Your task to perform on an android device: toggle wifi Image 0: 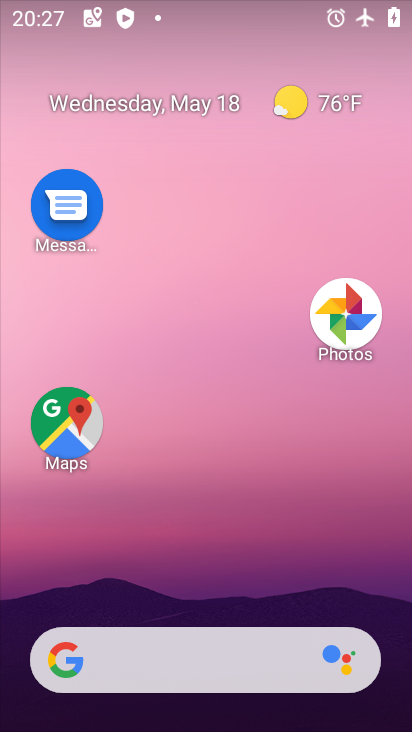
Step 0: drag from (226, 630) to (187, 89)
Your task to perform on an android device: toggle wifi Image 1: 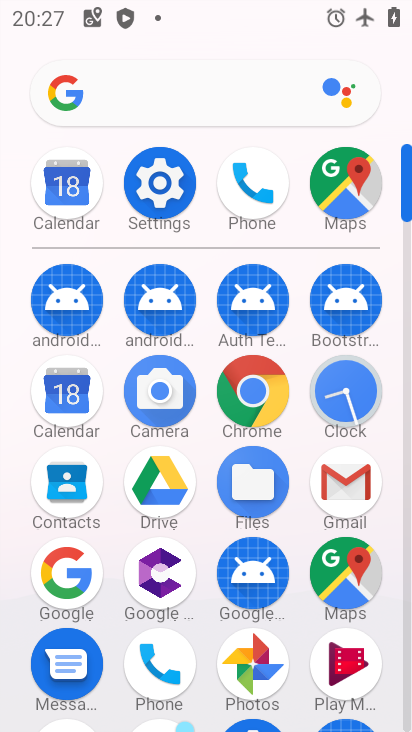
Step 1: click (148, 199)
Your task to perform on an android device: toggle wifi Image 2: 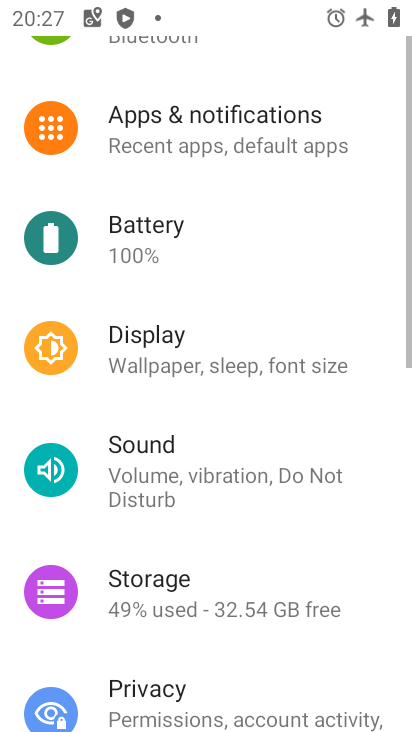
Step 2: drag from (148, 200) to (143, 617)
Your task to perform on an android device: toggle wifi Image 3: 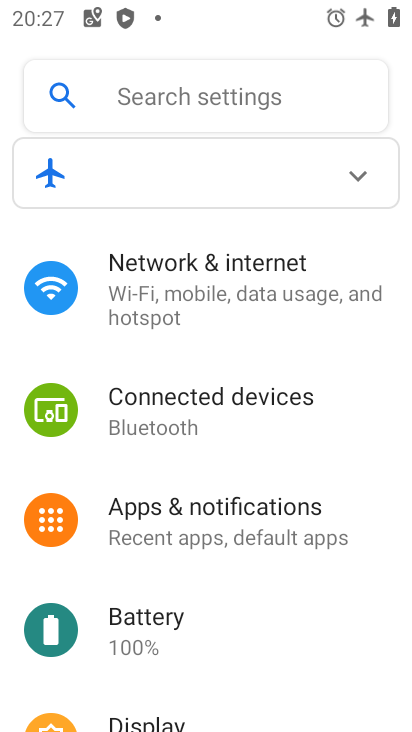
Step 3: click (152, 292)
Your task to perform on an android device: toggle wifi Image 4: 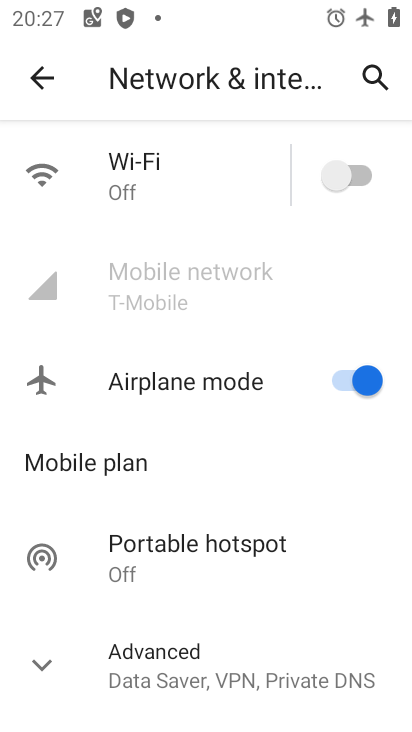
Step 4: click (327, 177)
Your task to perform on an android device: toggle wifi Image 5: 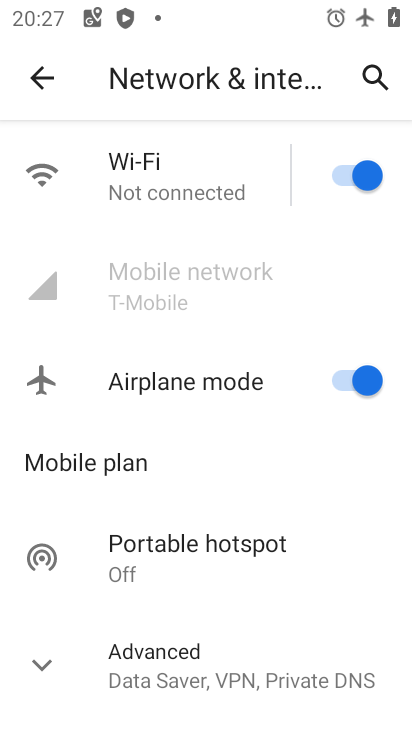
Step 5: task complete